Your task to perform on an android device: Go to accessibility settings Image 0: 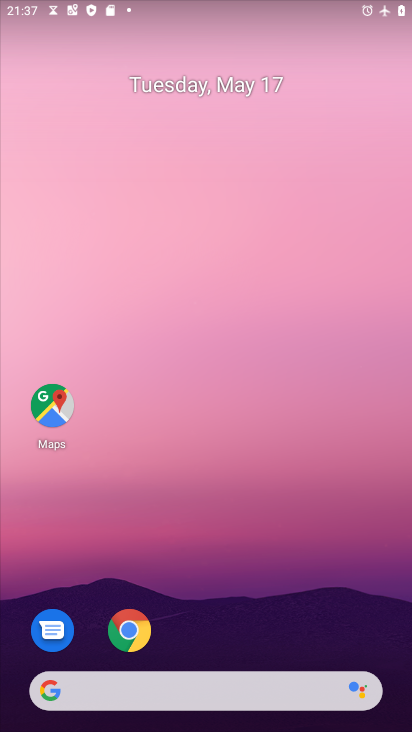
Step 0: drag from (197, 594) to (162, 64)
Your task to perform on an android device: Go to accessibility settings Image 1: 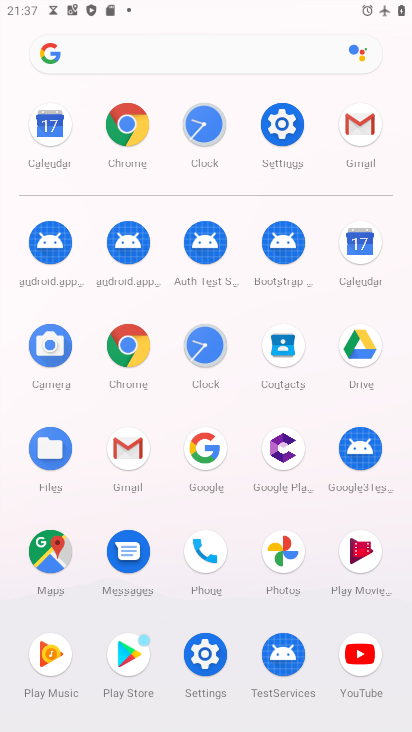
Step 1: click (280, 143)
Your task to perform on an android device: Go to accessibility settings Image 2: 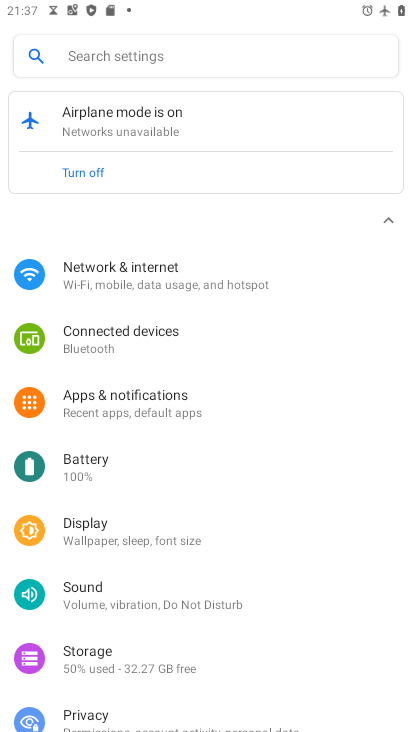
Step 2: drag from (149, 648) to (127, 271)
Your task to perform on an android device: Go to accessibility settings Image 3: 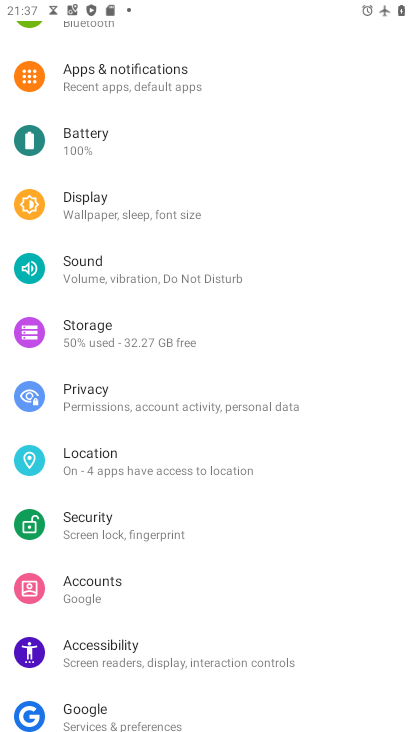
Step 3: click (101, 664)
Your task to perform on an android device: Go to accessibility settings Image 4: 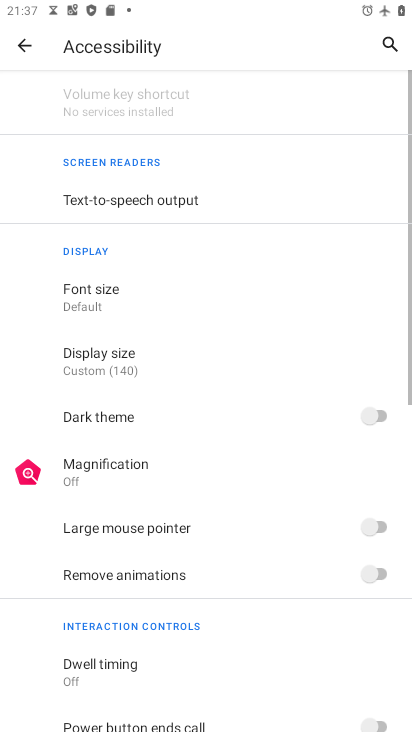
Step 4: drag from (104, 604) to (142, 249)
Your task to perform on an android device: Go to accessibility settings Image 5: 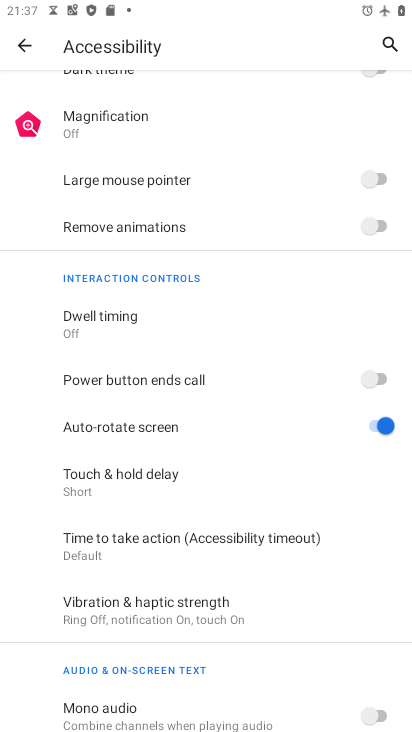
Step 5: drag from (102, 707) to (115, 303)
Your task to perform on an android device: Go to accessibility settings Image 6: 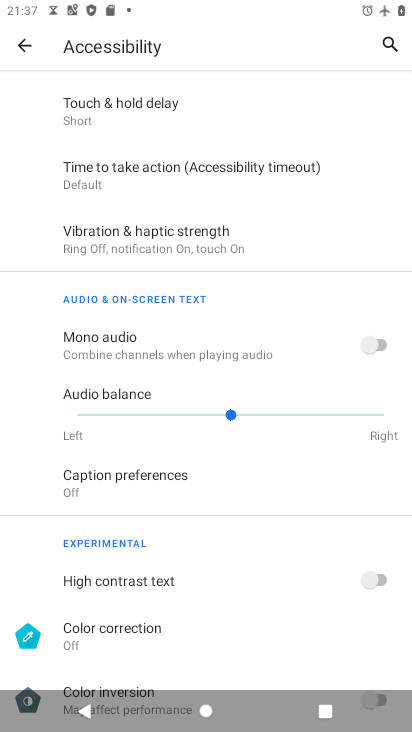
Step 6: click (127, 635)
Your task to perform on an android device: Go to accessibility settings Image 7: 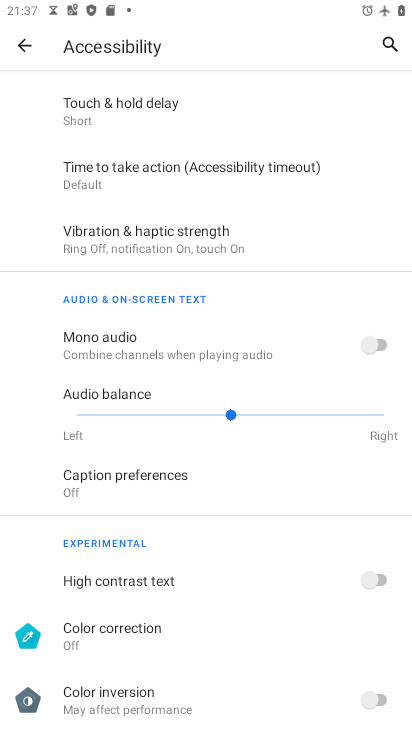
Step 7: task complete